Your task to perform on an android device: Search for razer blade on bestbuy, select the first entry, add it to the cart, then select checkout. Image 0: 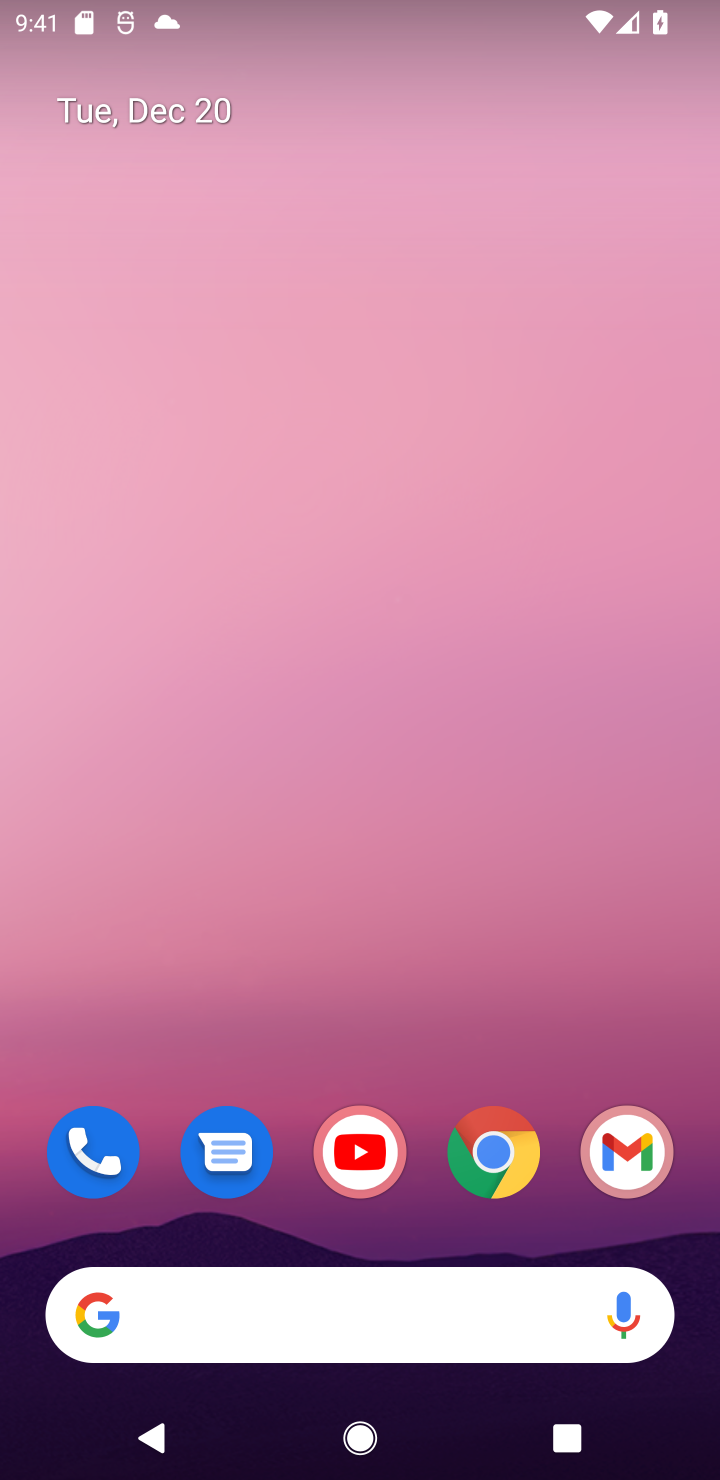
Step 0: click (488, 1145)
Your task to perform on an android device: Search for razer blade on bestbuy, select the first entry, add it to the cart, then select checkout. Image 1: 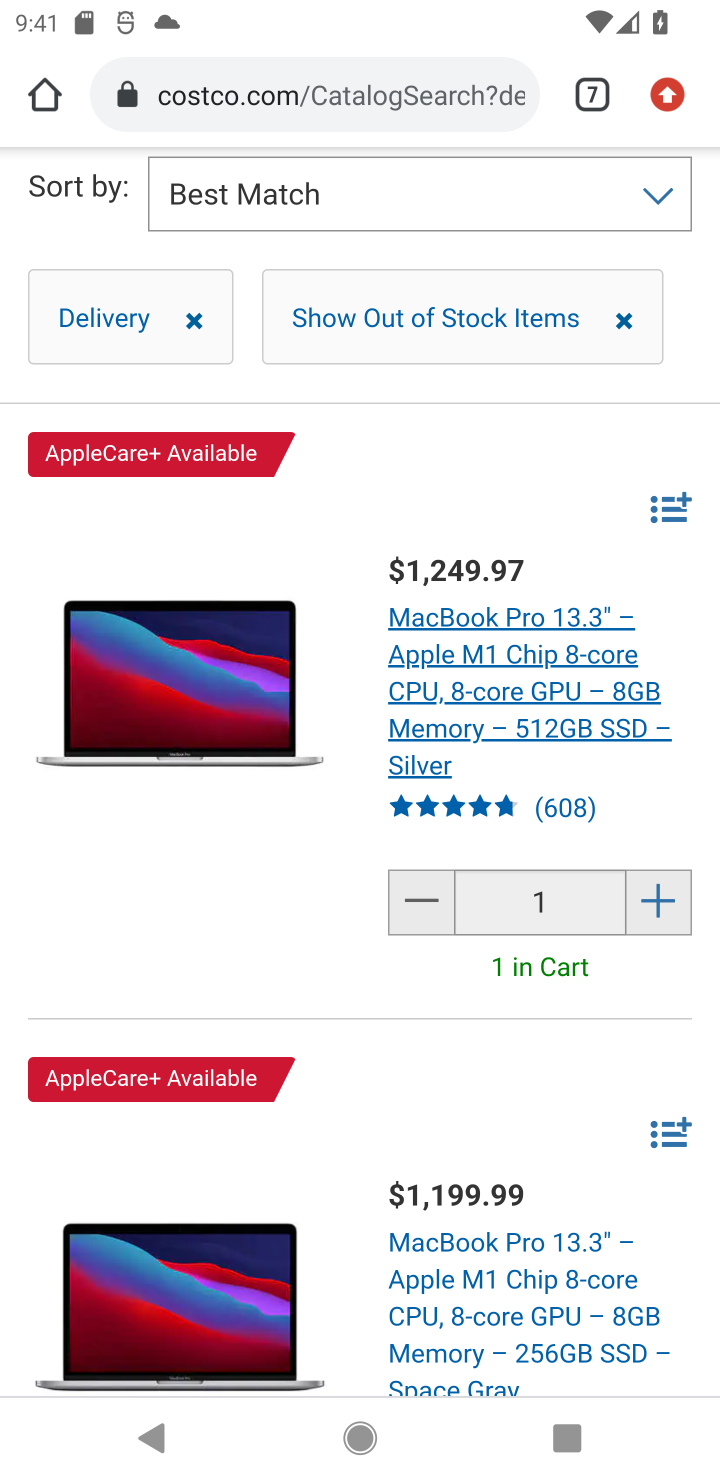
Step 1: click (586, 92)
Your task to perform on an android device: Search for razer blade on bestbuy, select the first entry, add it to the cart, then select checkout. Image 2: 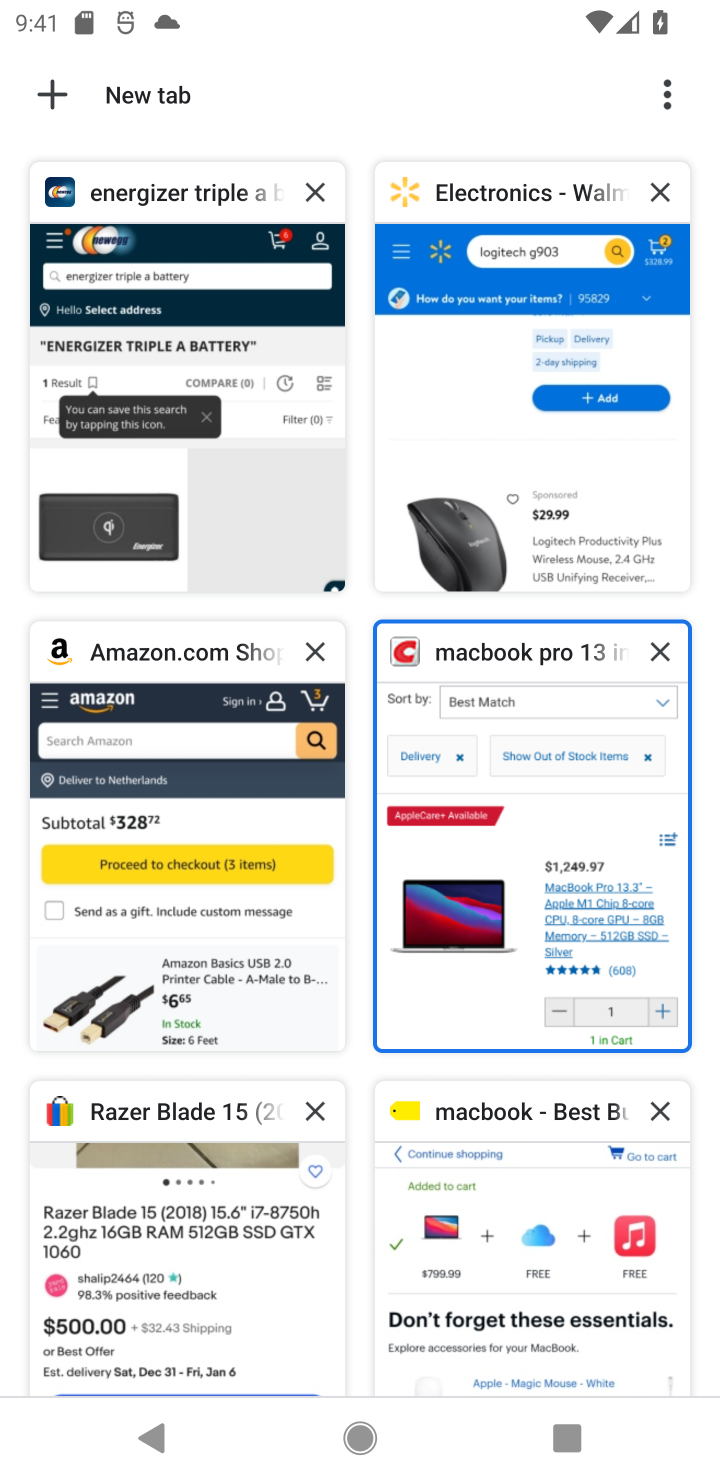
Step 2: click (436, 1272)
Your task to perform on an android device: Search for razer blade on bestbuy, select the first entry, add it to the cart, then select checkout. Image 3: 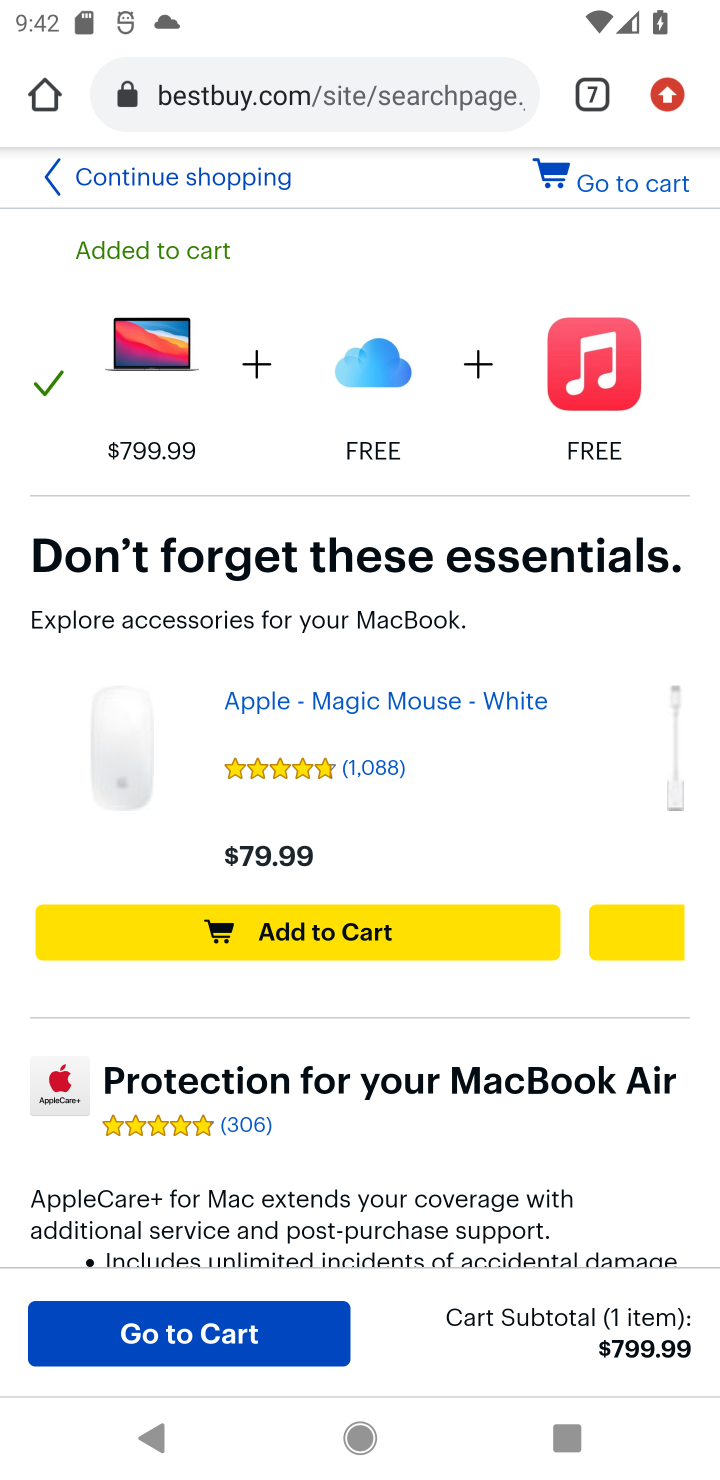
Step 3: drag from (444, 249) to (301, 887)
Your task to perform on an android device: Search for razer blade on bestbuy, select the first entry, add it to the cart, then select checkout. Image 4: 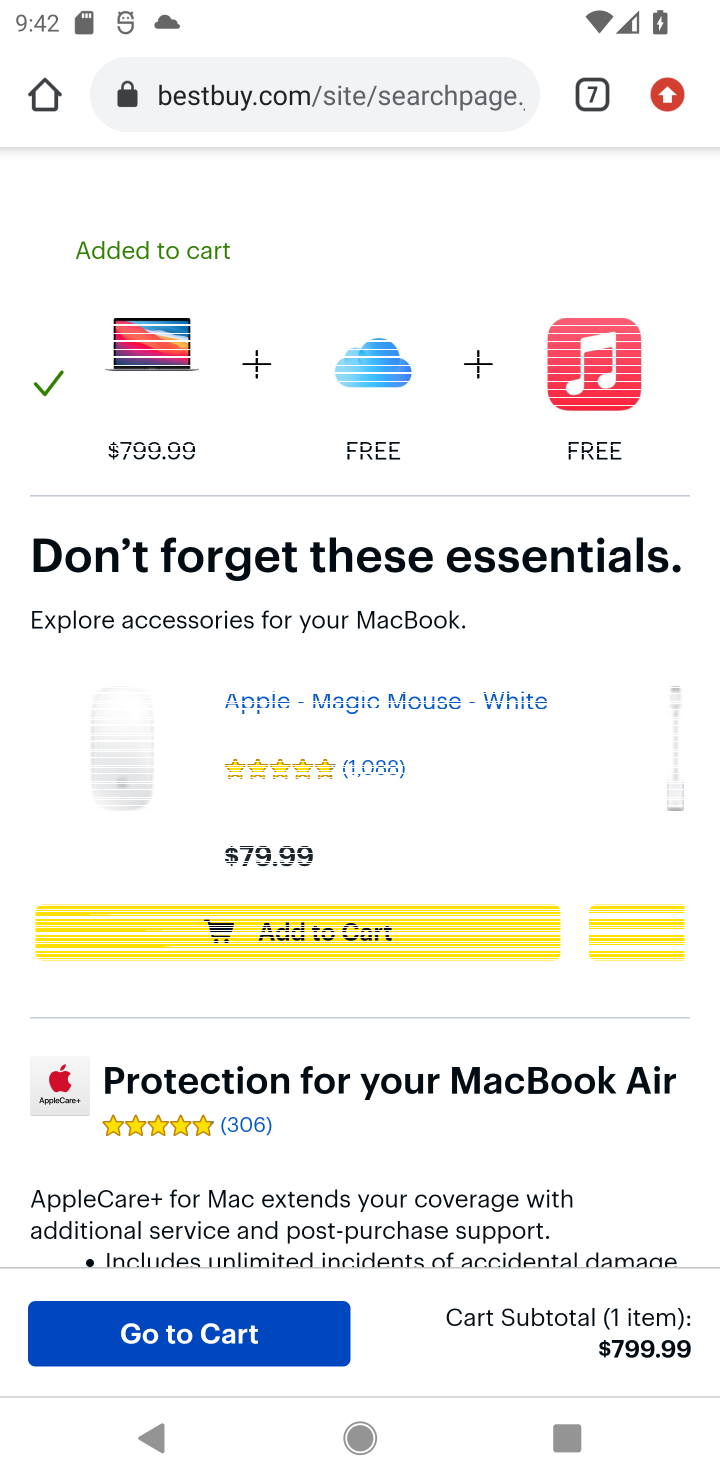
Step 4: click (173, 179)
Your task to perform on an android device: Search for razer blade on bestbuy, select the first entry, add it to the cart, then select checkout. Image 5: 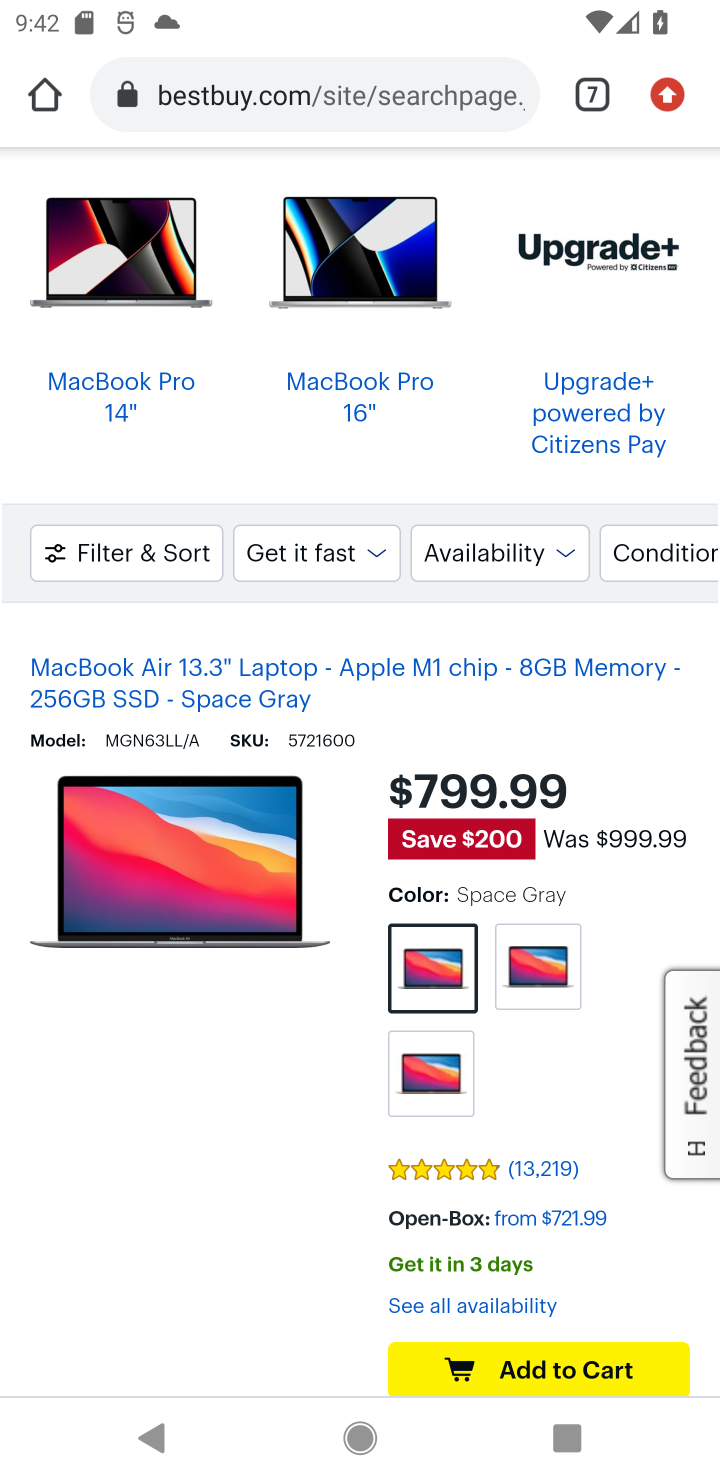
Step 5: drag from (225, 197) to (100, 1106)
Your task to perform on an android device: Search for razer blade on bestbuy, select the first entry, add it to the cart, then select checkout. Image 6: 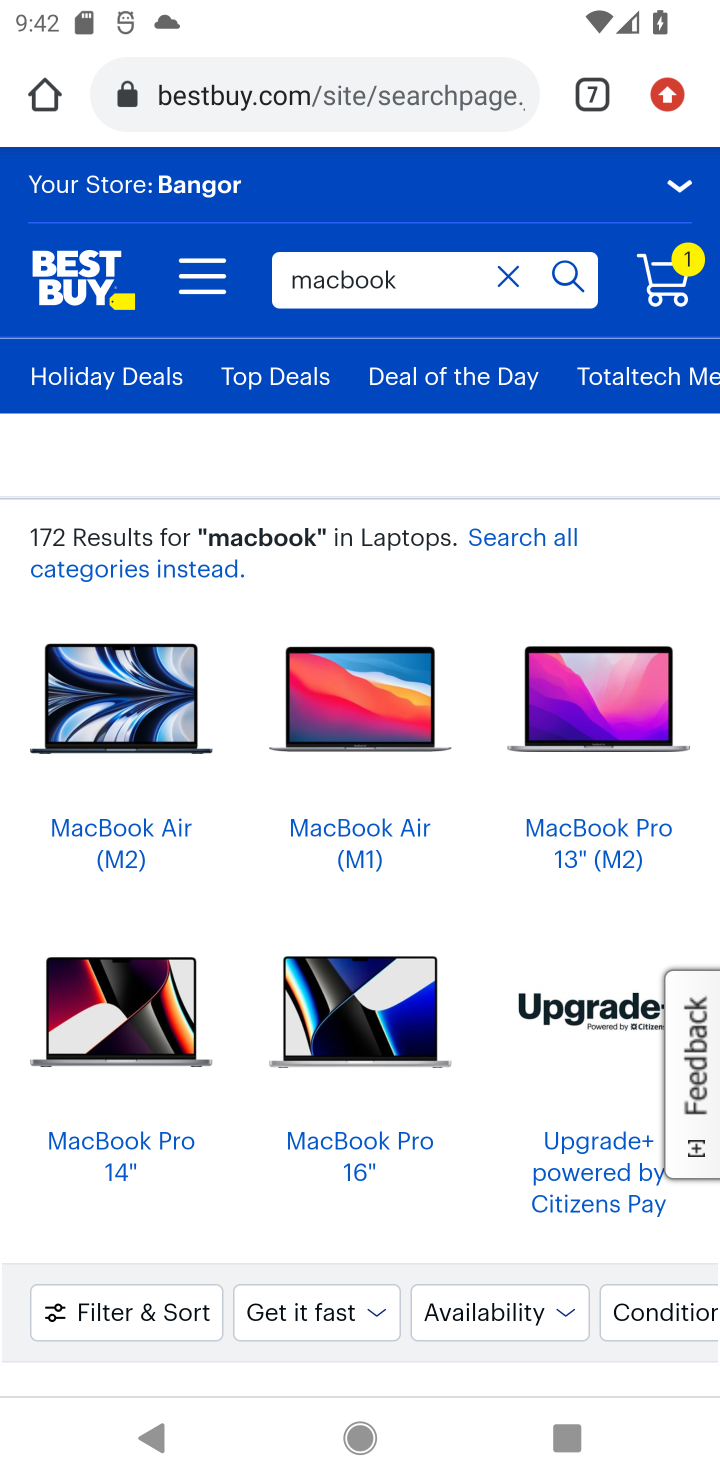
Step 6: click (514, 274)
Your task to perform on an android device: Search for razer blade on bestbuy, select the first entry, add it to the cart, then select checkout. Image 7: 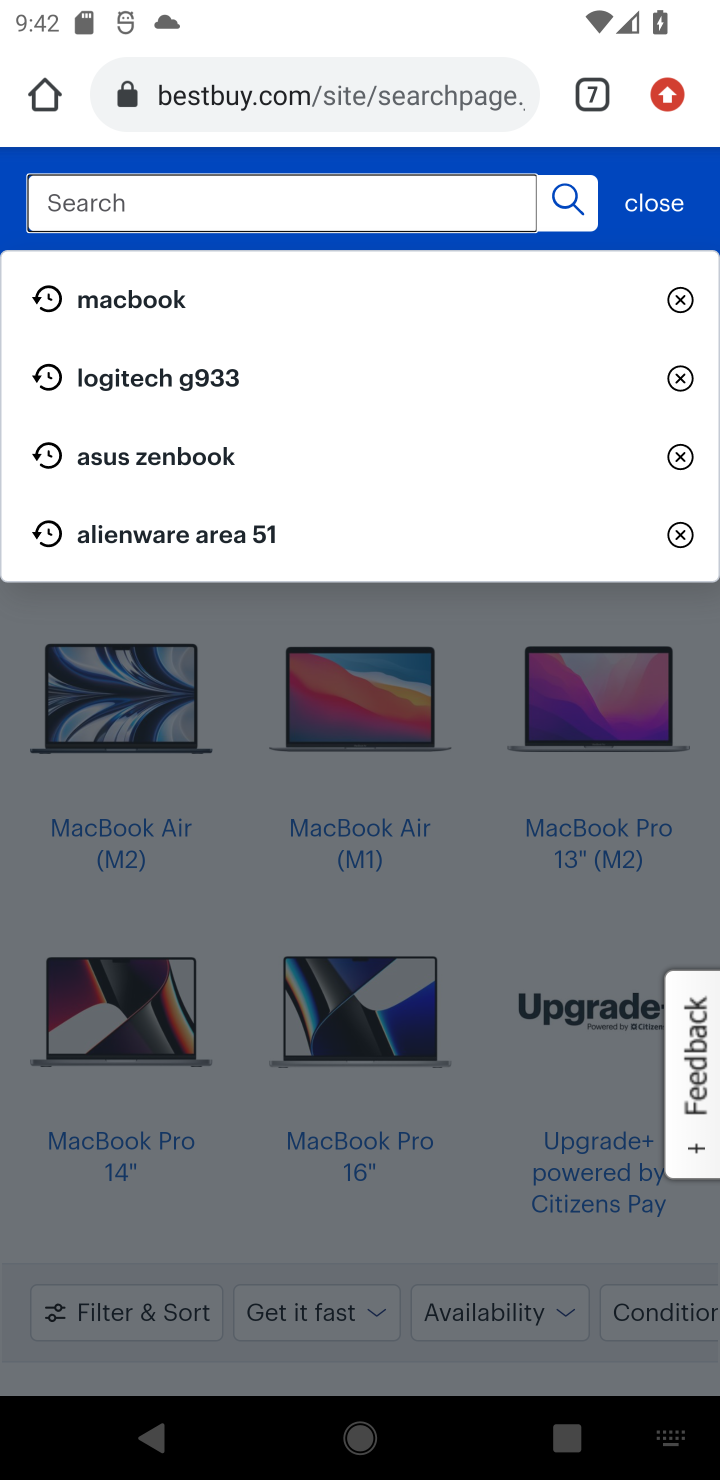
Step 7: type "razer blade"
Your task to perform on an android device: Search for razer blade on bestbuy, select the first entry, add it to the cart, then select checkout. Image 8: 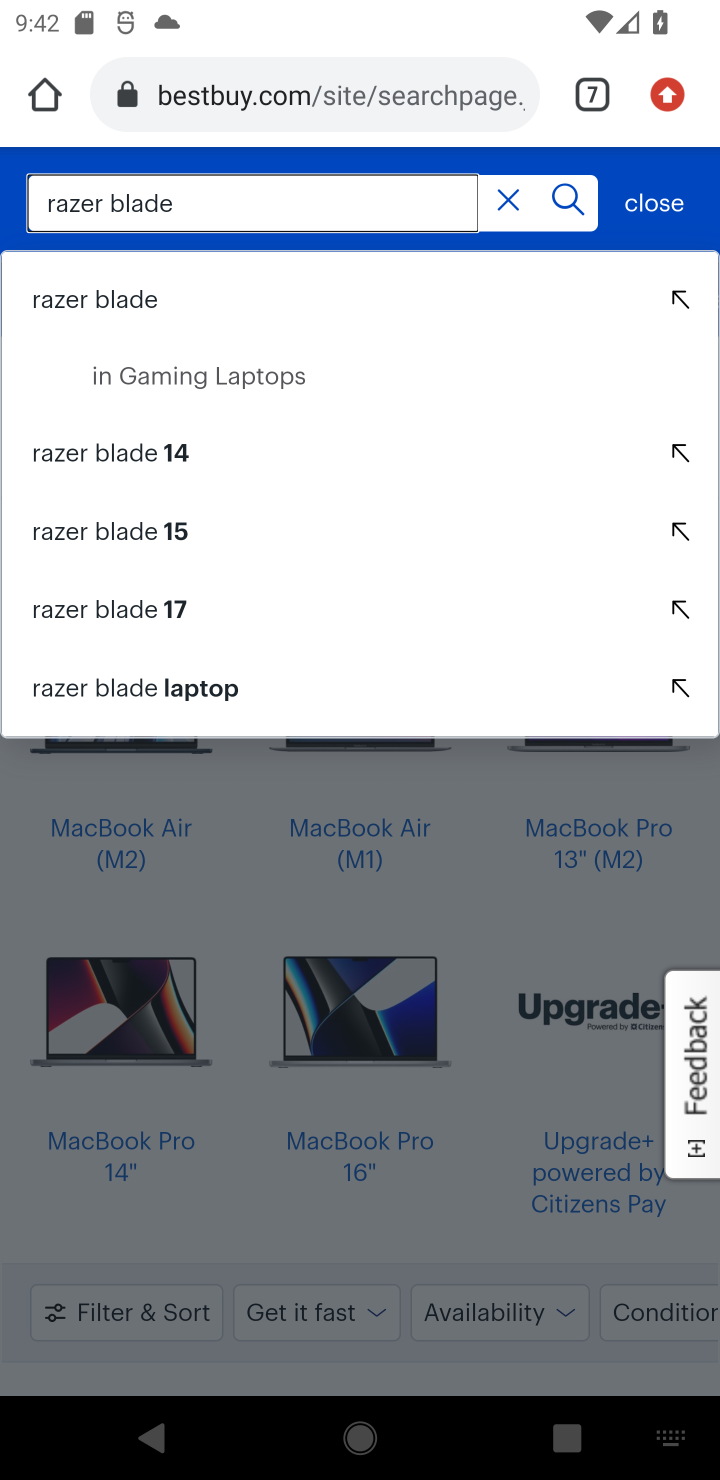
Step 8: click (95, 286)
Your task to perform on an android device: Search for razer blade on bestbuy, select the first entry, add it to the cart, then select checkout. Image 9: 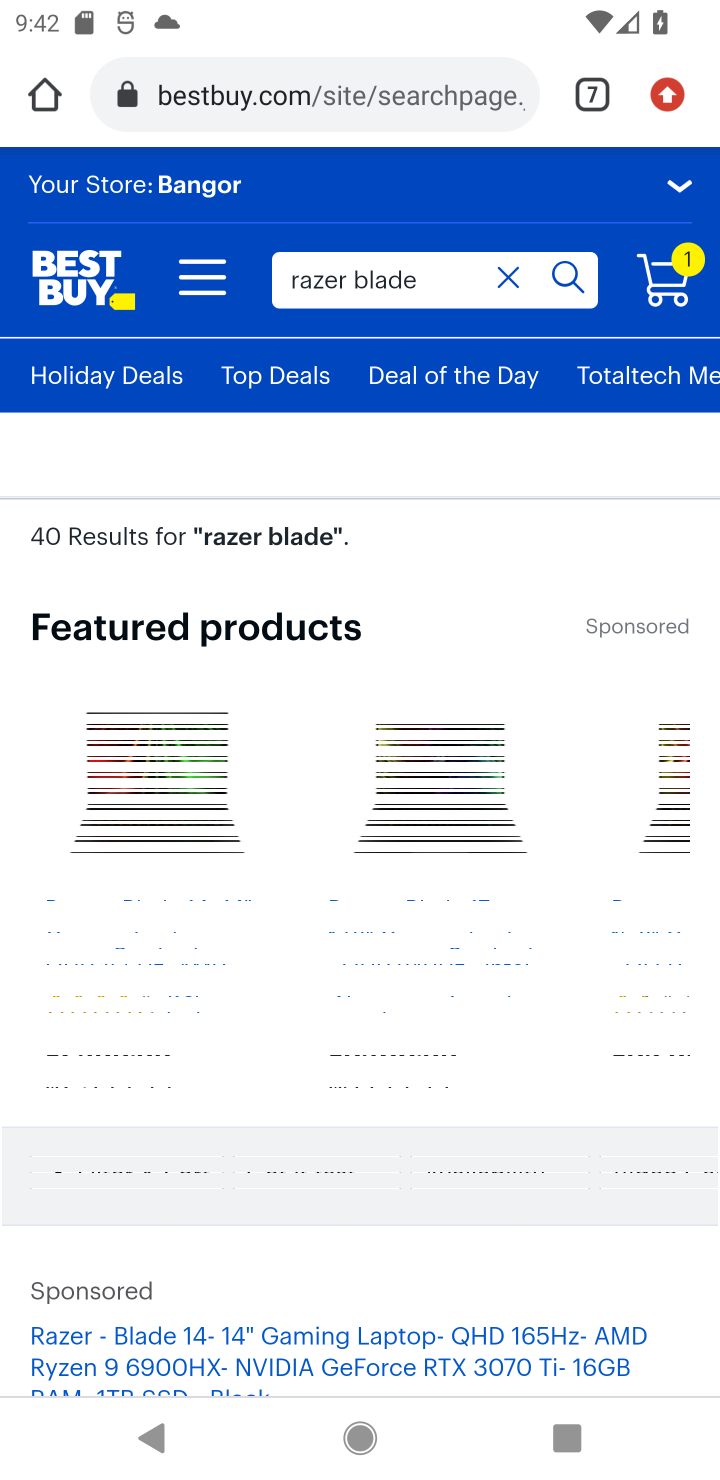
Step 9: drag from (501, 1282) to (544, 559)
Your task to perform on an android device: Search for razer blade on bestbuy, select the first entry, add it to the cart, then select checkout. Image 10: 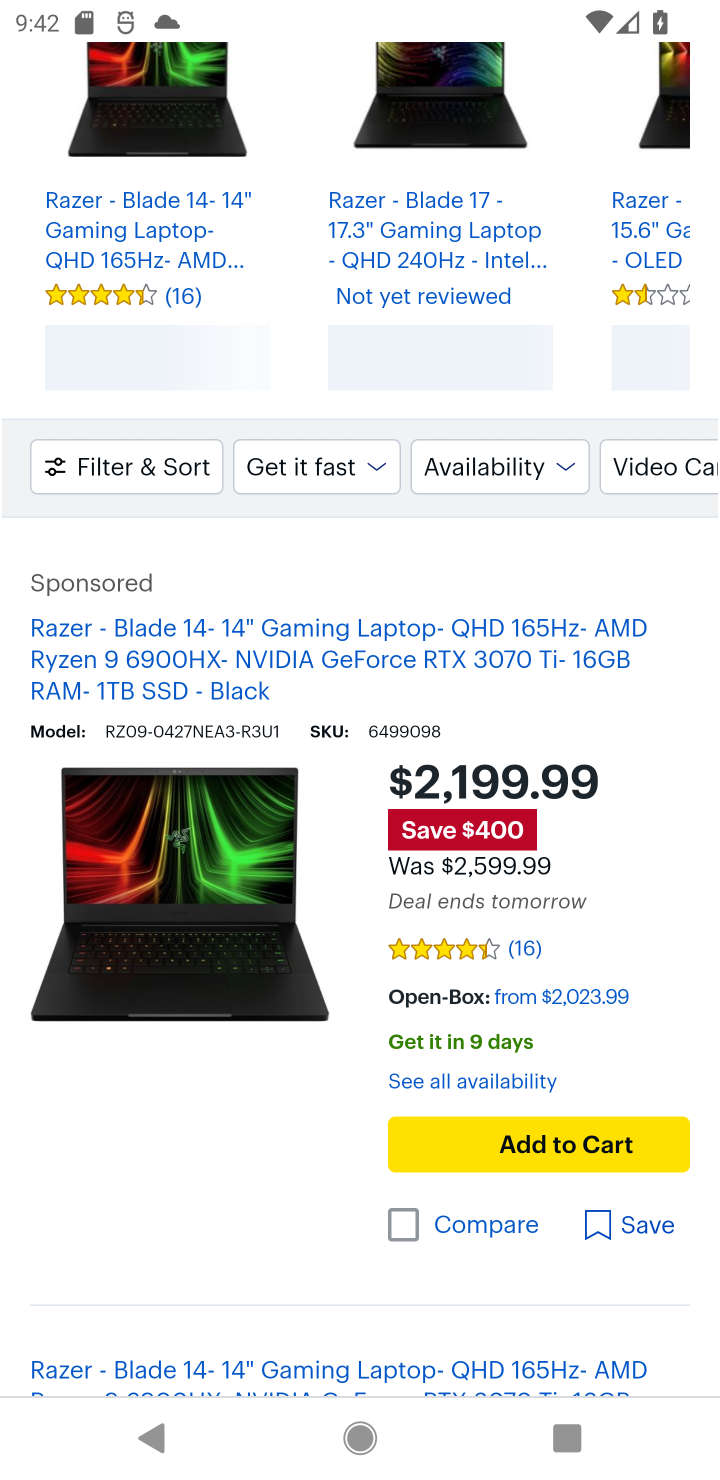
Step 10: click (544, 1137)
Your task to perform on an android device: Search for razer blade on bestbuy, select the first entry, add it to the cart, then select checkout. Image 11: 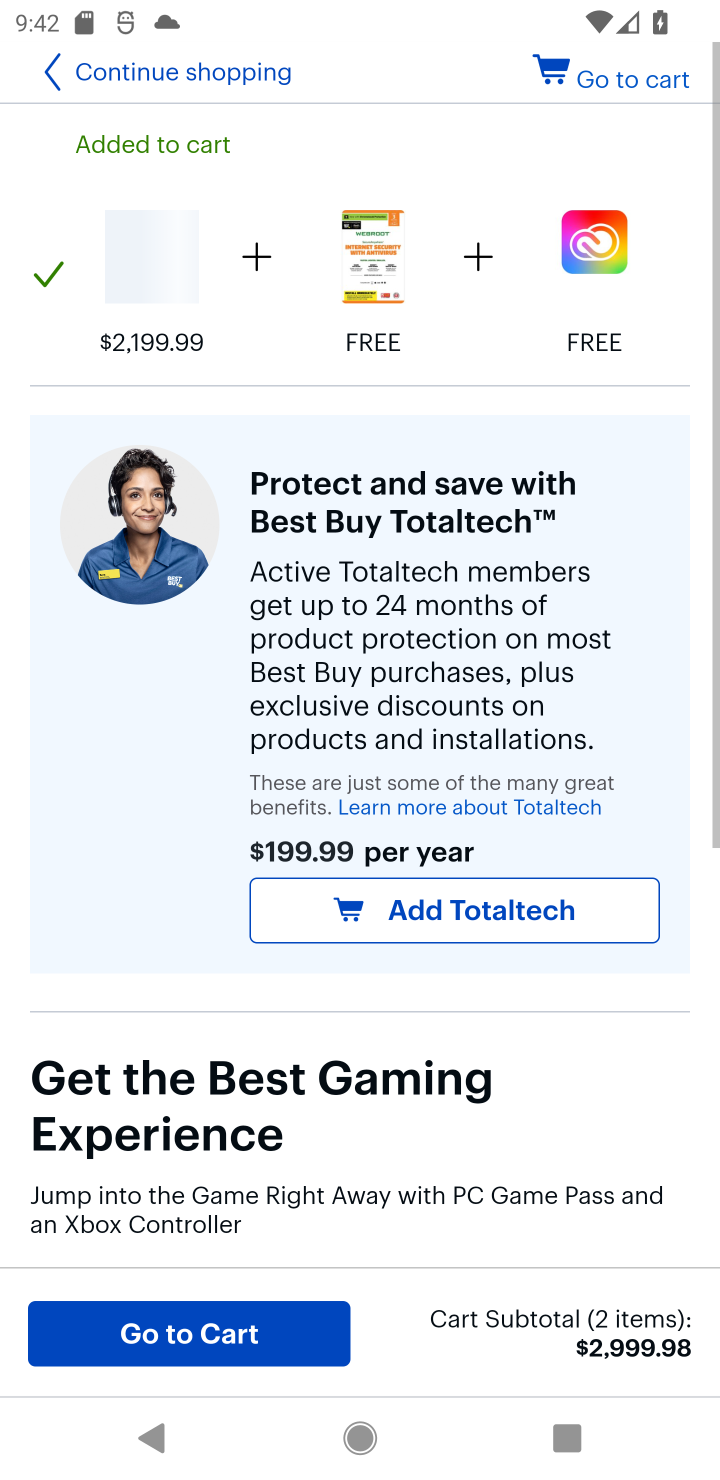
Step 11: task complete